Your task to perform on an android device: turn on the 12-hour format for clock Image 0: 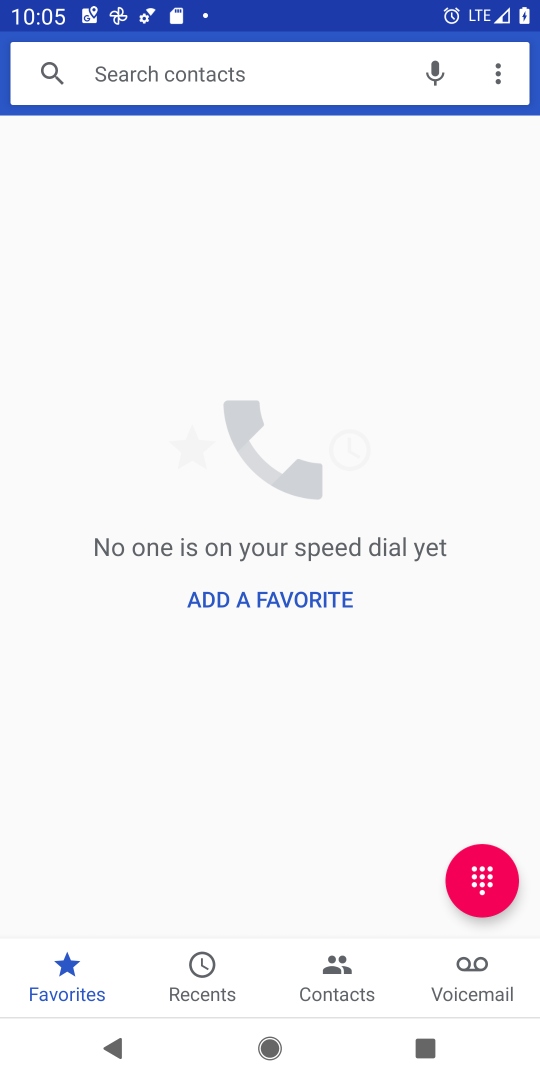
Step 0: press home button
Your task to perform on an android device: turn on the 12-hour format for clock Image 1: 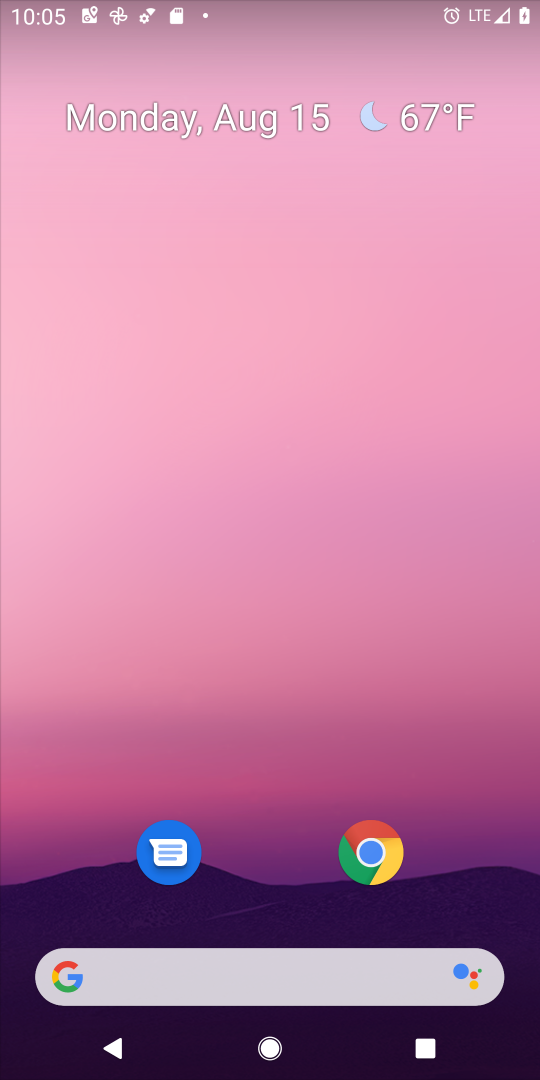
Step 1: drag from (280, 973) to (362, 114)
Your task to perform on an android device: turn on the 12-hour format for clock Image 2: 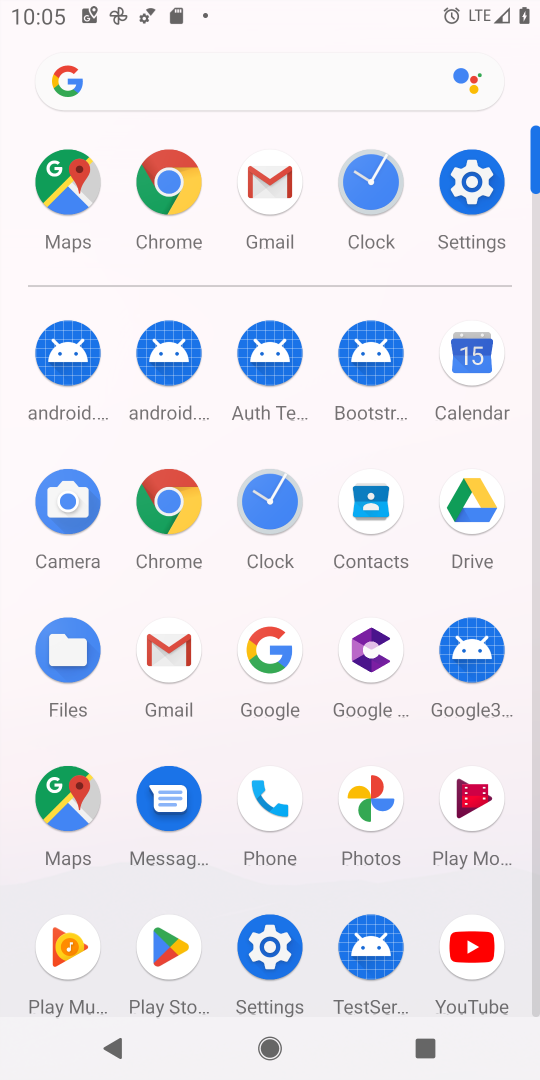
Step 2: click (375, 185)
Your task to perform on an android device: turn on the 12-hour format for clock Image 3: 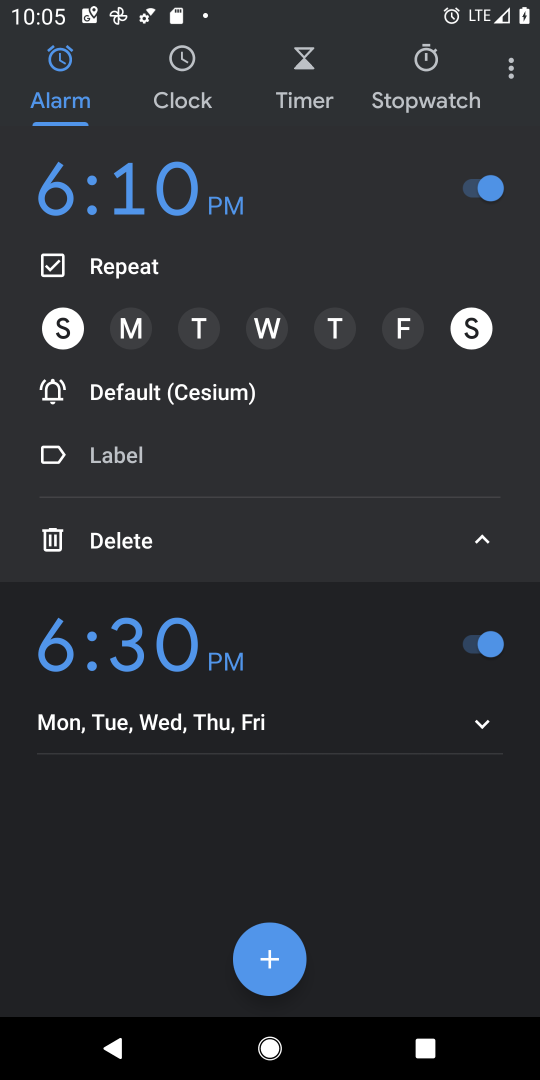
Step 3: click (509, 69)
Your task to perform on an android device: turn on the 12-hour format for clock Image 4: 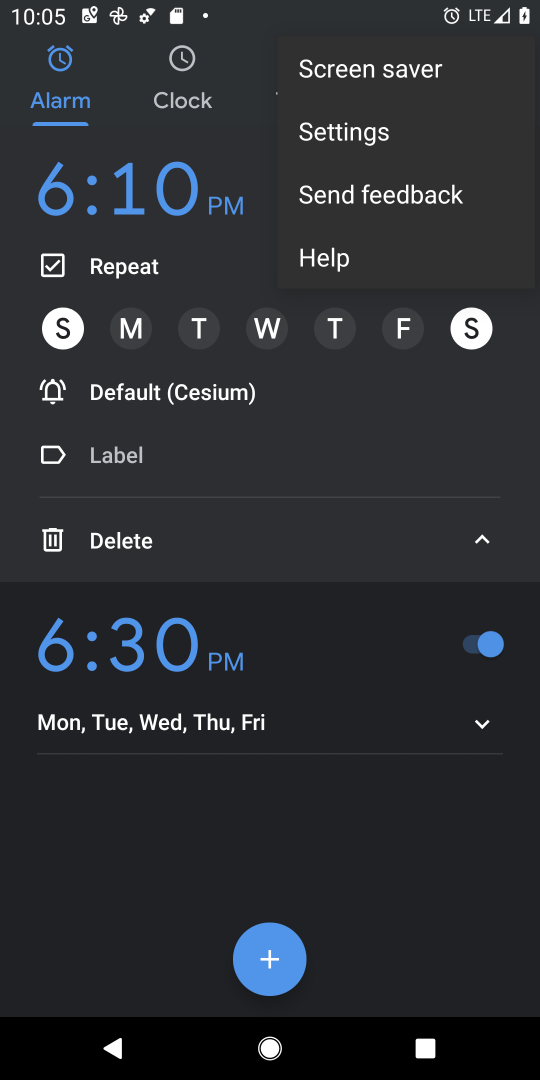
Step 4: click (364, 131)
Your task to perform on an android device: turn on the 12-hour format for clock Image 5: 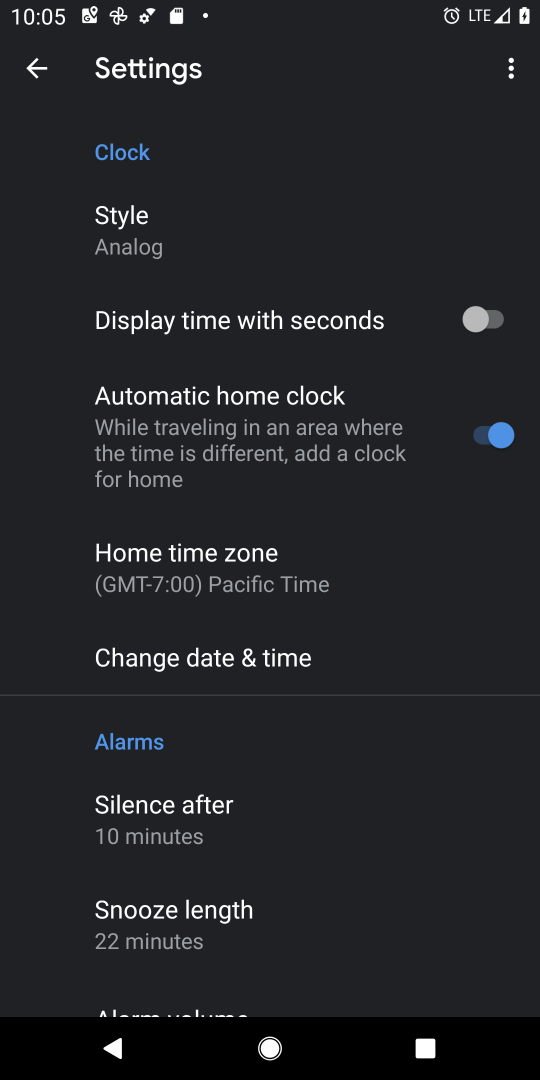
Step 5: drag from (270, 748) to (378, 568)
Your task to perform on an android device: turn on the 12-hour format for clock Image 6: 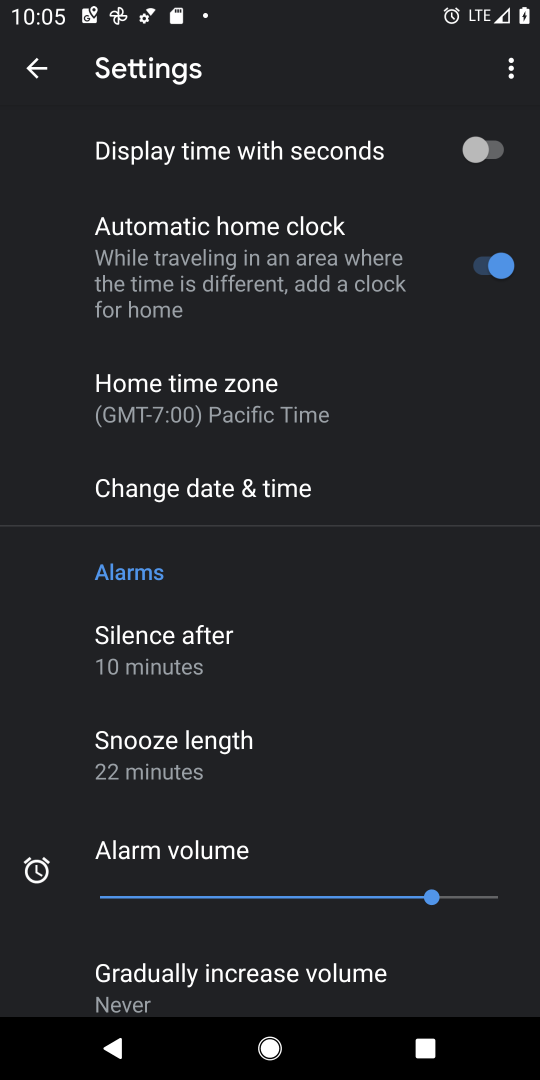
Step 6: click (265, 482)
Your task to perform on an android device: turn on the 12-hour format for clock Image 7: 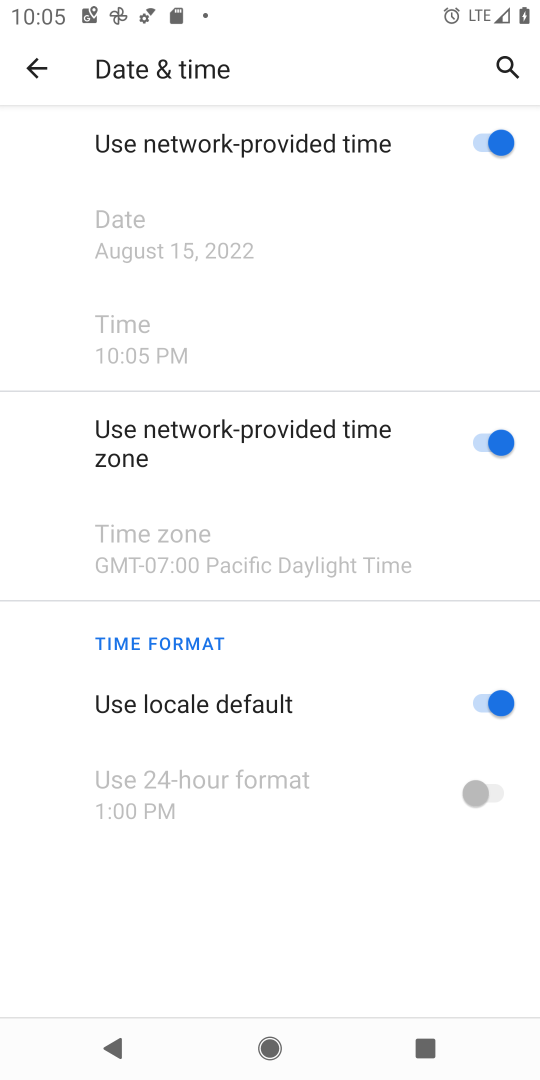
Step 7: task complete